Your task to perform on an android device: change keyboard looks Image 0: 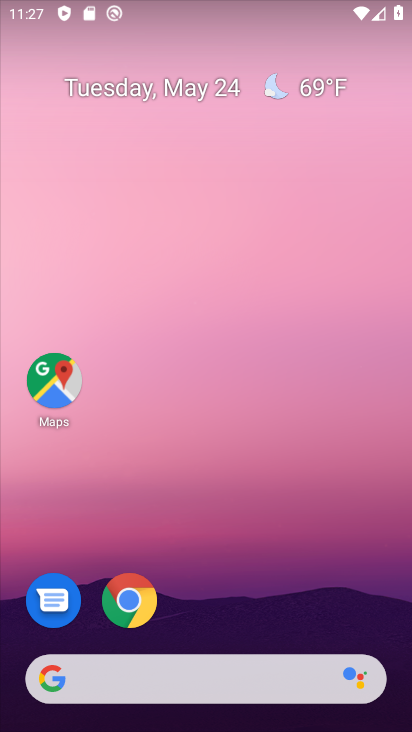
Step 0: drag from (367, 611) to (356, 211)
Your task to perform on an android device: change keyboard looks Image 1: 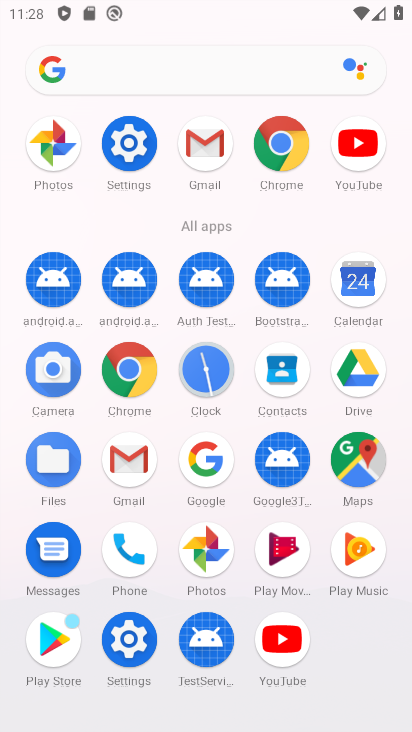
Step 1: click (135, 643)
Your task to perform on an android device: change keyboard looks Image 2: 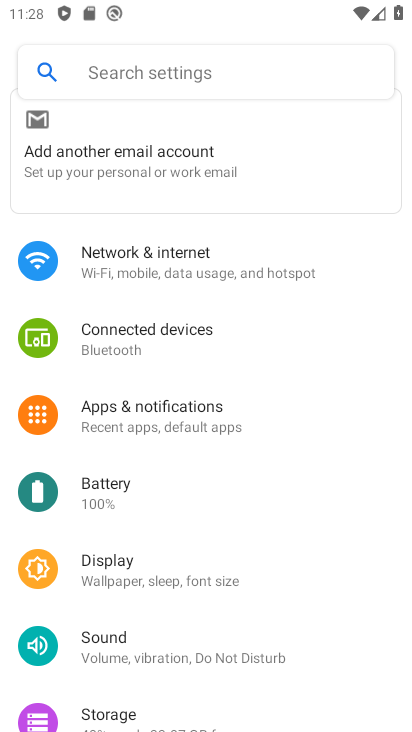
Step 2: drag from (305, 642) to (302, 460)
Your task to perform on an android device: change keyboard looks Image 3: 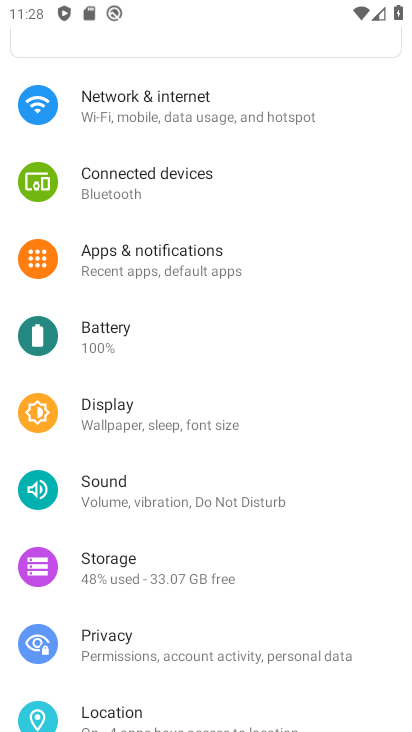
Step 3: drag from (306, 619) to (296, 438)
Your task to perform on an android device: change keyboard looks Image 4: 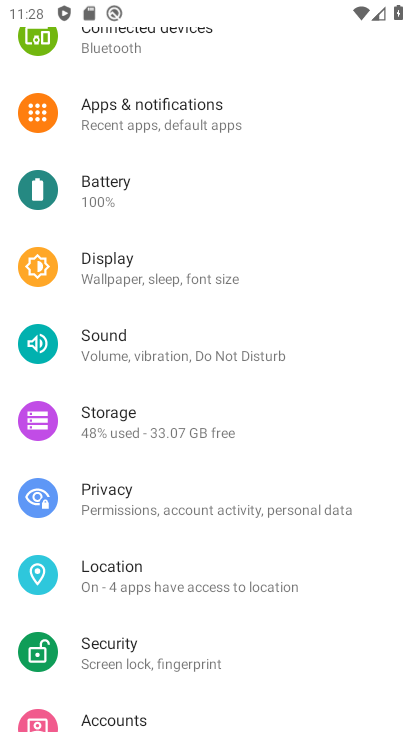
Step 4: drag from (323, 642) to (343, 448)
Your task to perform on an android device: change keyboard looks Image 5: 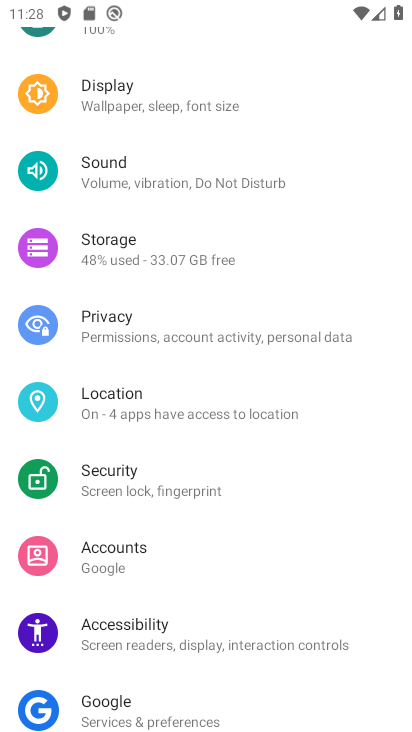
Step 5: drag from (348, 620) to (340, 438)
Your task to perform on an android device: change keyboard looks Image 6: 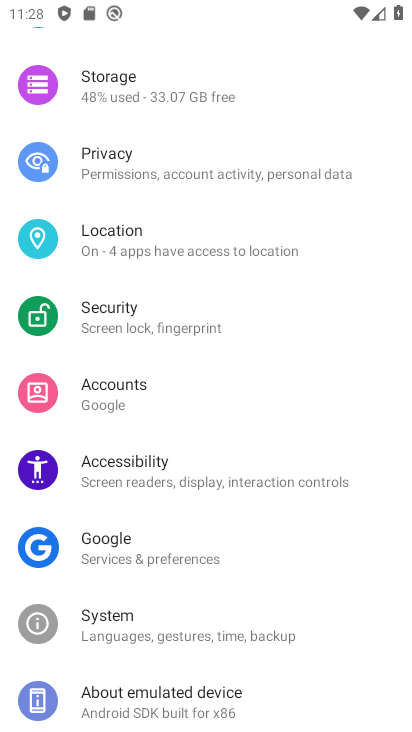
Step 6: drag from (340, 657) to (321, 476)
Your task to perform on an android device: change keyboard looks Image 7: 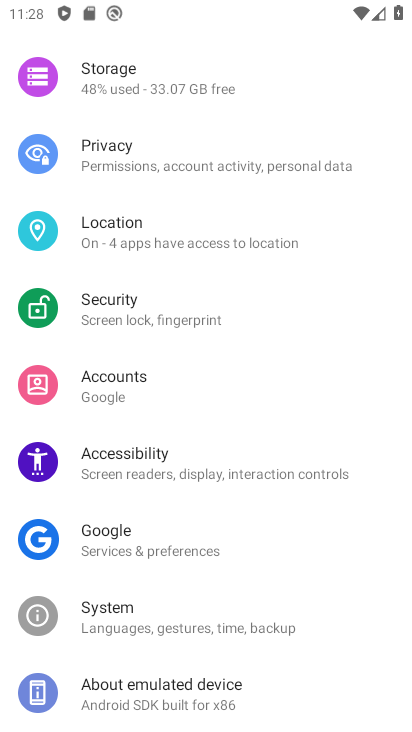
Step 7: drag from (330, 324) to (335, 488)
Your task to perform on an android device: change keyboard looks Image 8: 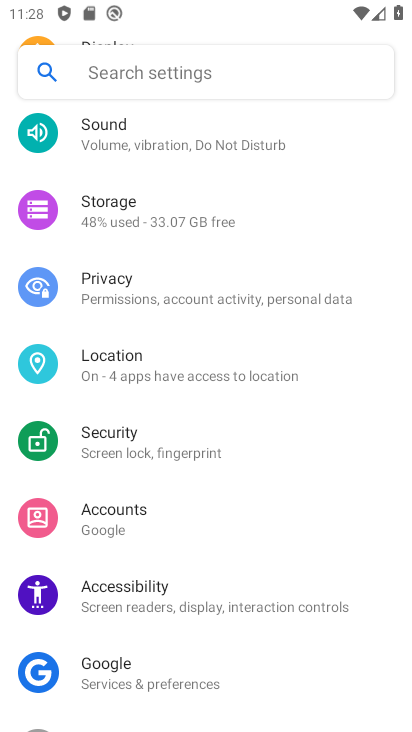
Step 8: drag from (320, 230) to (331, 372)
Your task to perform on an android device: change keyboard looks Image 9: 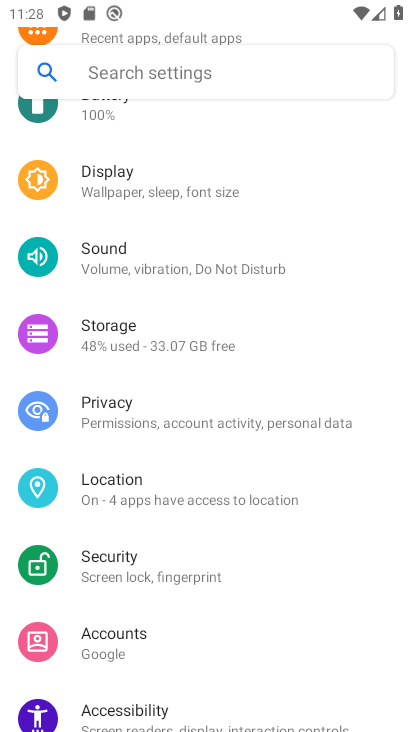
Step 9: drag from (346, 209) to (338, 387)
Your task to perform on an android device: change keyboard looks Image 10: 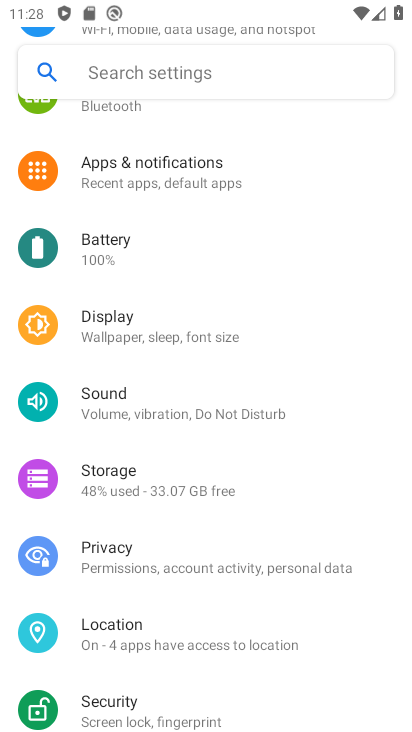
Step 10: drag from (336, 214) to (341, 374)
Your task to perform on an android device: change keyboard looks Image 11: 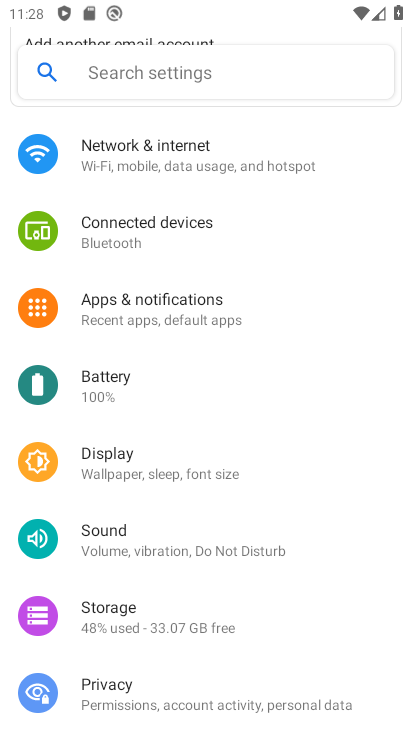
Step 11: drag from (331, 248) to (340, 420)
Your task to perform on an android device: change keyboard looks Image 12: 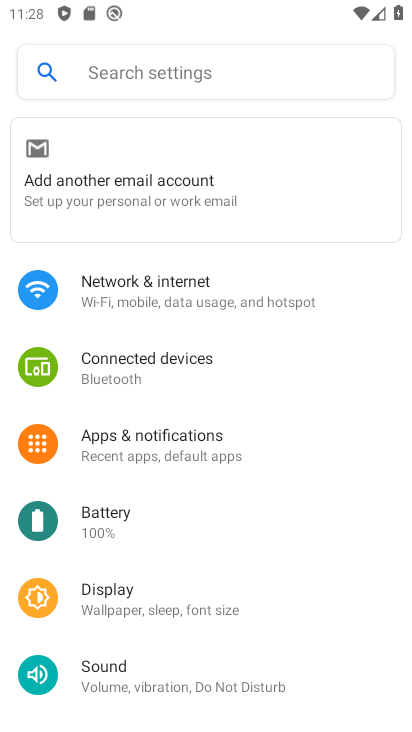
Step 12: drag from (346, 451) to (345, 323)
Your task to perform on an android device: change keyboard looks Image 13: 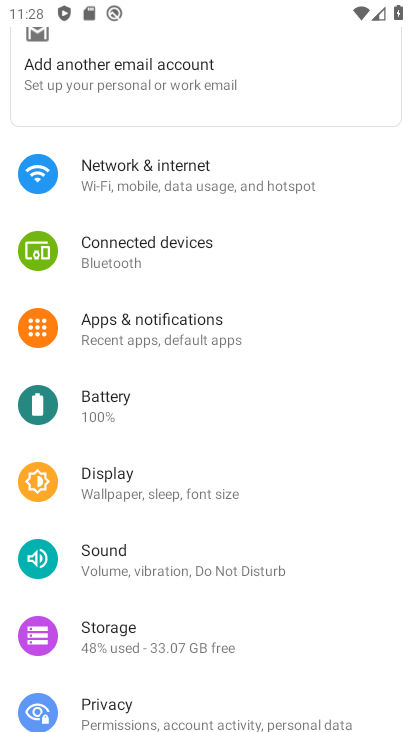
Step 13: drag from (343, 476) to (334, 335)
Your task to perform on an android device: change keyboard looks Image 14: 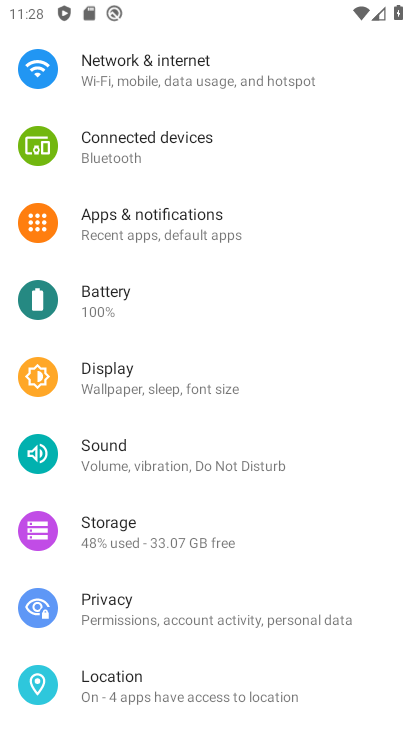
Step 14: drag from (333, 524) to (338, 374)
Your task to perform on an android device: change keyboard looks Image 15: 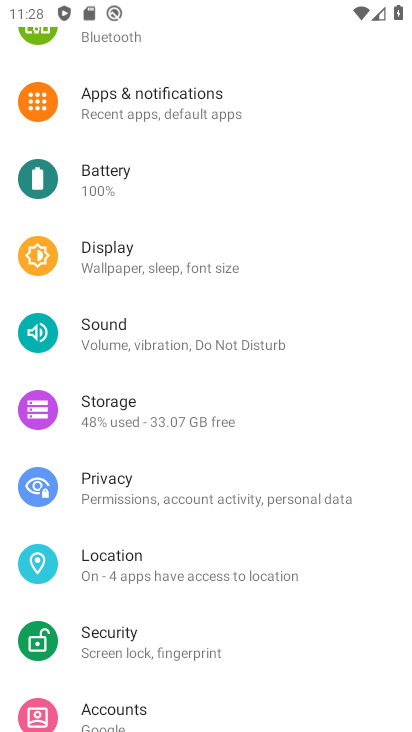
Step 15: drag from (344, 595) to (336, 430)
Your task to perform on an android device: change keyboard looks Image 16: 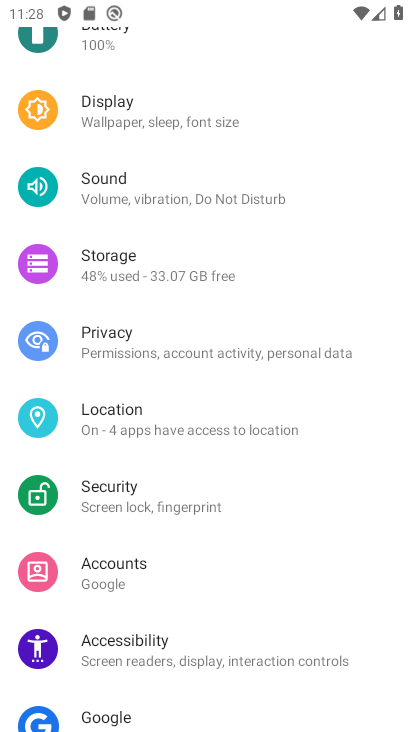
Step 16: drag from (316, 597) to (335, 394)
Your task to perform on an android device: change keyboard looks Image 17: 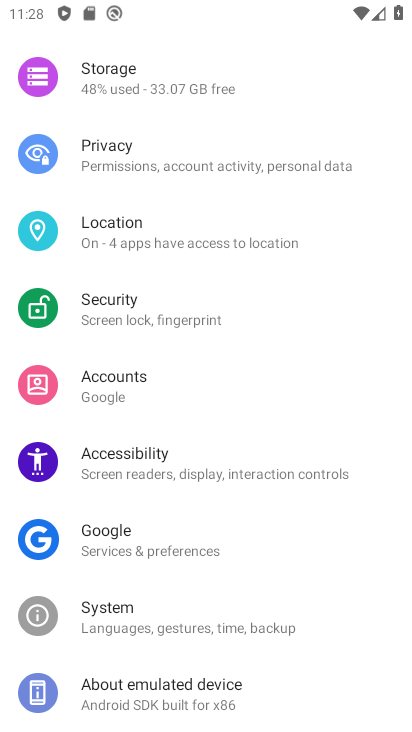
Step 17: click (207, 626)
Your task to perform on an android device: change keyboard looks Image 18: 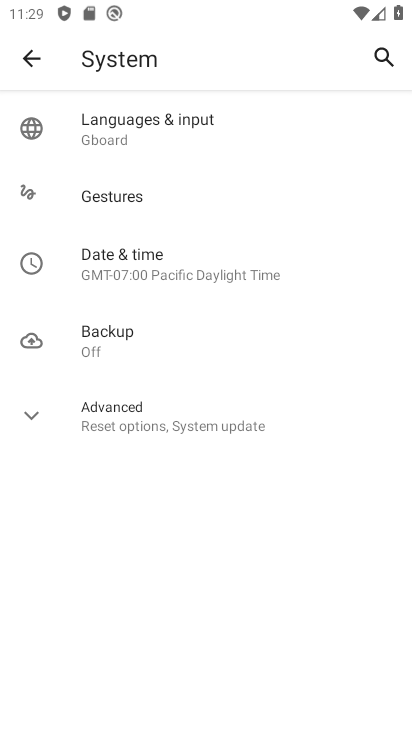
Step 18: click (146, 134)
Your task to perform on an android device: change keyboard looks Image 19: 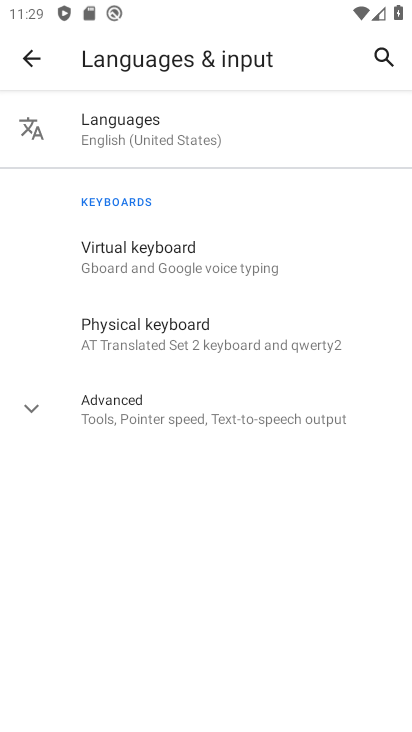
Step 19: click (174, 273)
Your task to perform on an android device: change keyboard looks Image 20: 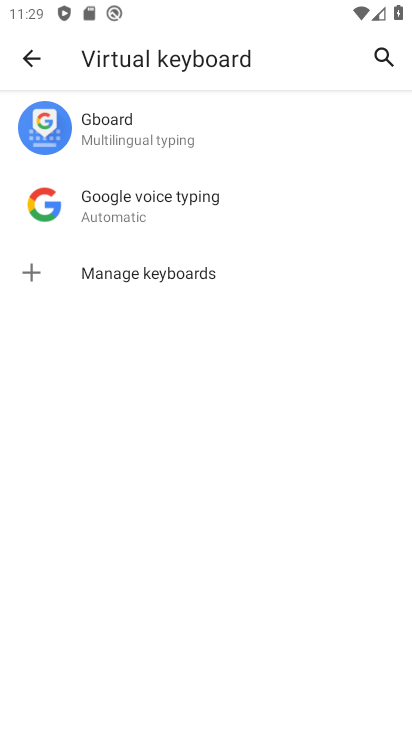
Step 20: click (159, 119)
Your task to perform on an android device: change keyboard looks Image 21: 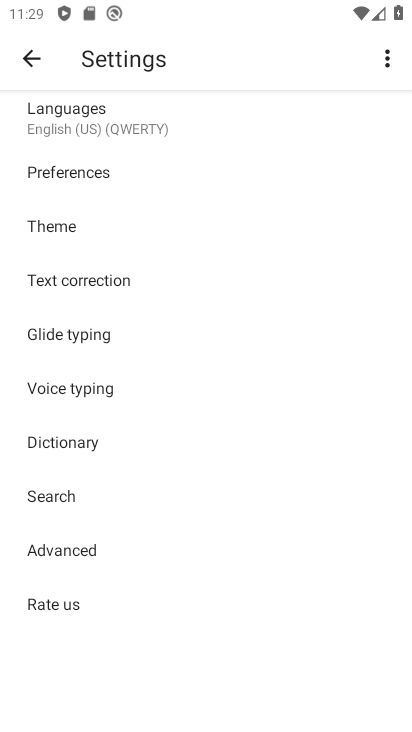
Step 21: click (81, 224)
Your task to perform on an android device: change keyboard looks Image 22: 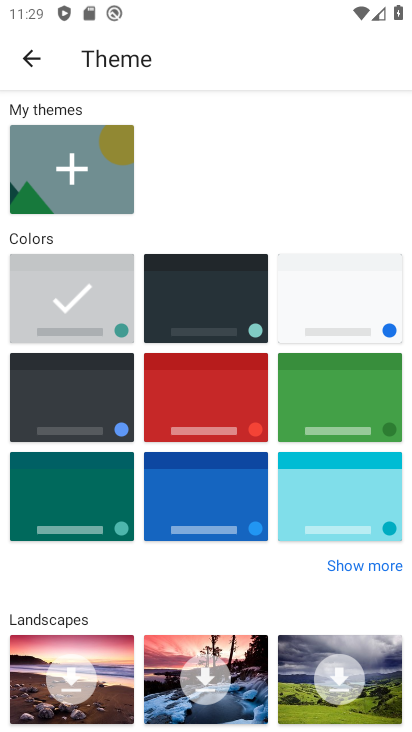
Step 22: click (175, 387)
Your task to perform on an android device: change keyboard looks Image 23: 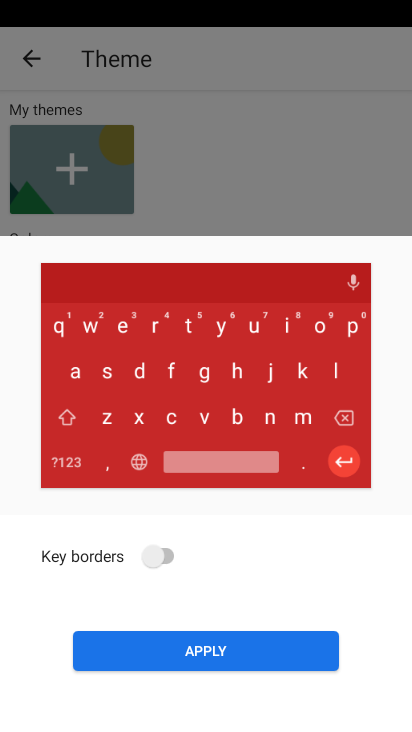
Step 23: click (245, 669)
Your task to perform on an android device: change keyboard looks Image 24: 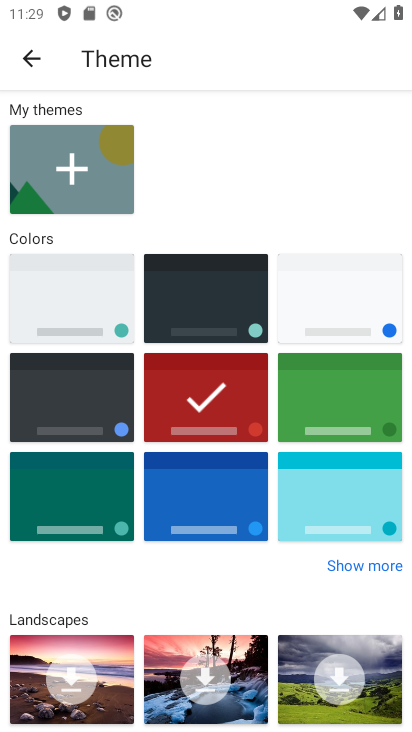
Step 24: task complete